Your task to perform on an android device: Do I have any events tomorrow? Image 0: 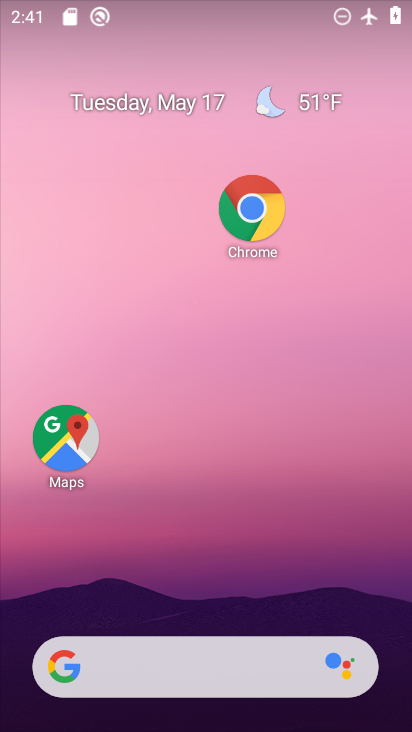
Step 0: drag from (205, 638) to (129, 13)
Your task to perform on an android device: Do I have any events tomorrow? Image 1: 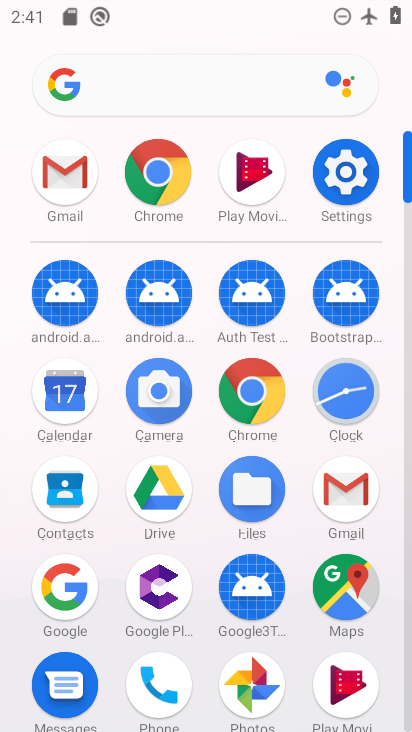
Step 1: click (83, 383)
Your task to perform on an android device: Do I have any events tomorrow? Image 2: 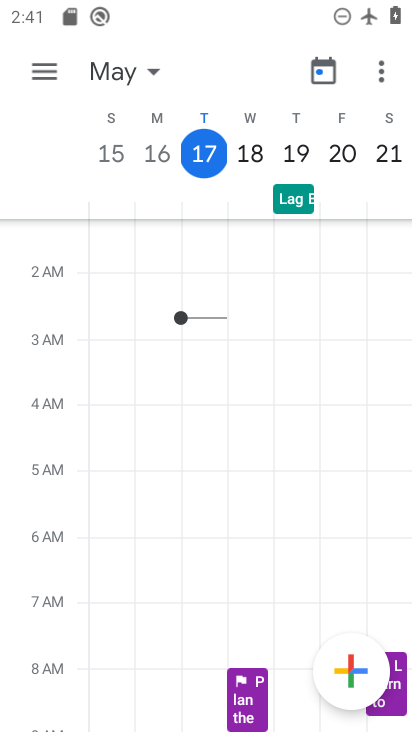
Step 2: click (249, 142)
Your task to perform on an android device: Do I have any events tomorrow? Image 3: 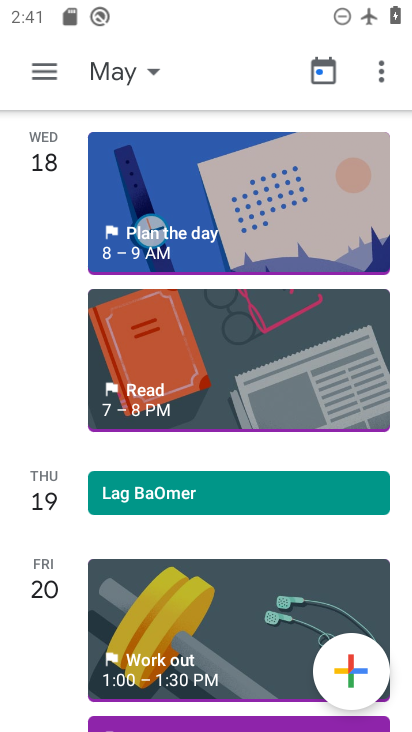
Step 3: task complete